Your task to perform on an android device: Do I have any events tomorrow? Image 0: 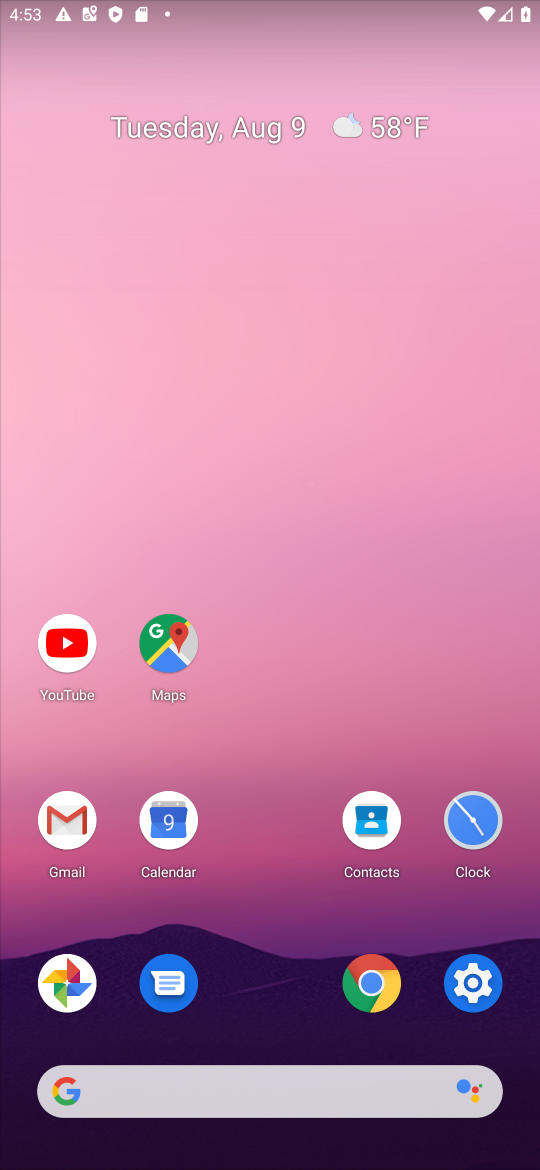
Step 0: click (170, 816)
Your task to perform on an android device: Do I have any events tomorrow? Image 1: 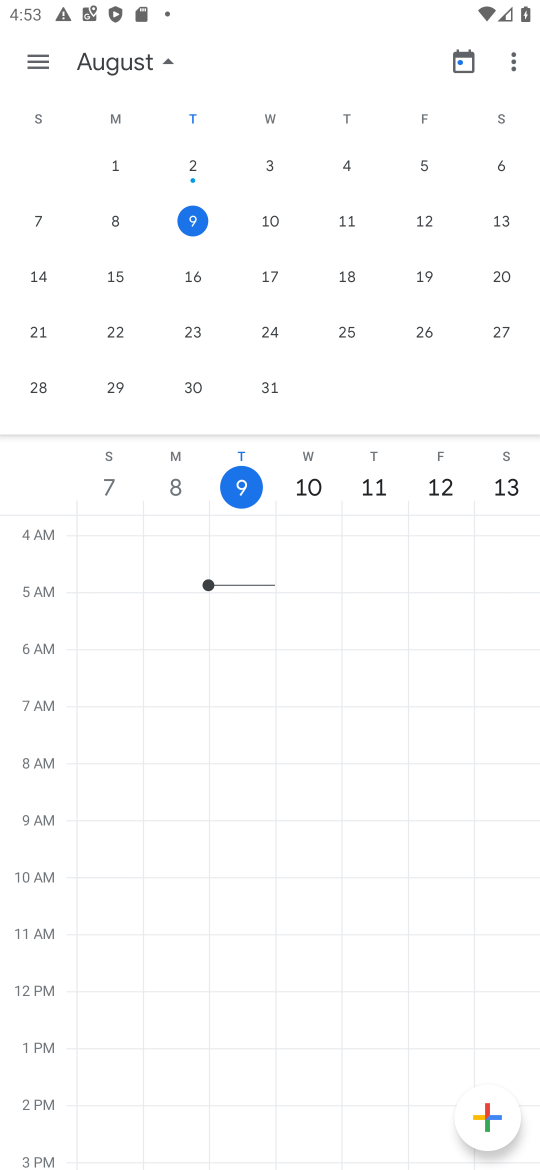
Step 1: click (268, 218)
Your task to perform on an android device: Do I have any events tomorrow? Image 2: 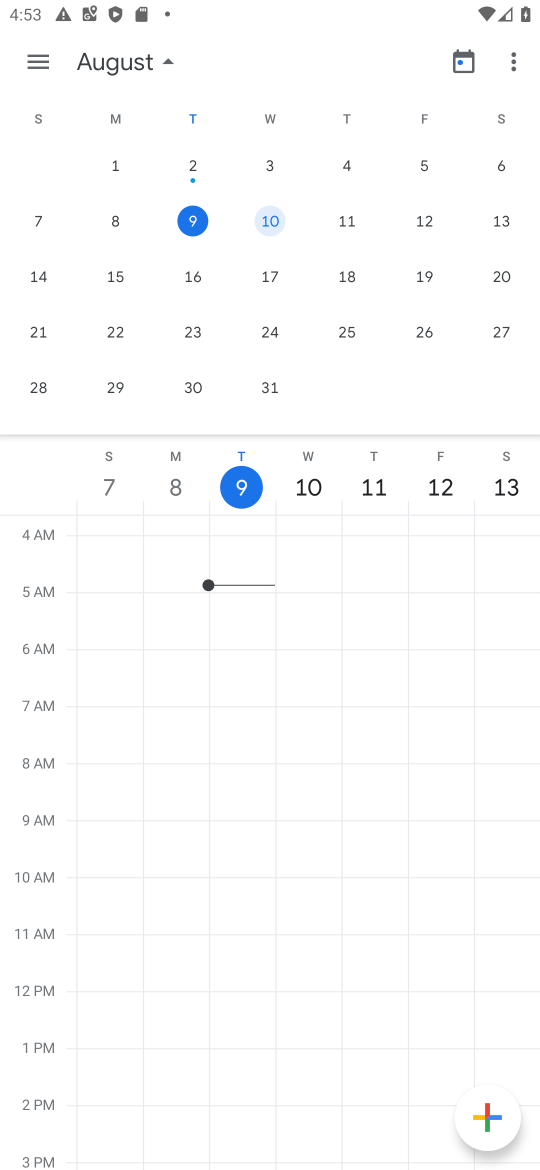
Step 2: click (268, 218)
Your task to perform on an android device: Do I have any events tomorrow? Image 3: 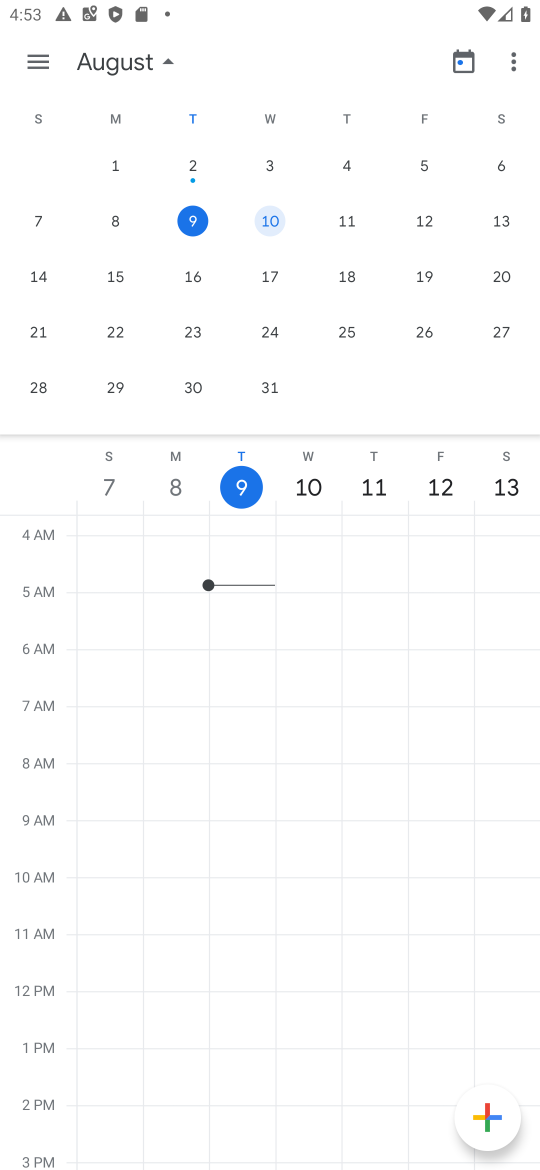
Step 3: click (316, 479)
Your task to perform on an android device: Do I have any events tomorrow? Image 4: 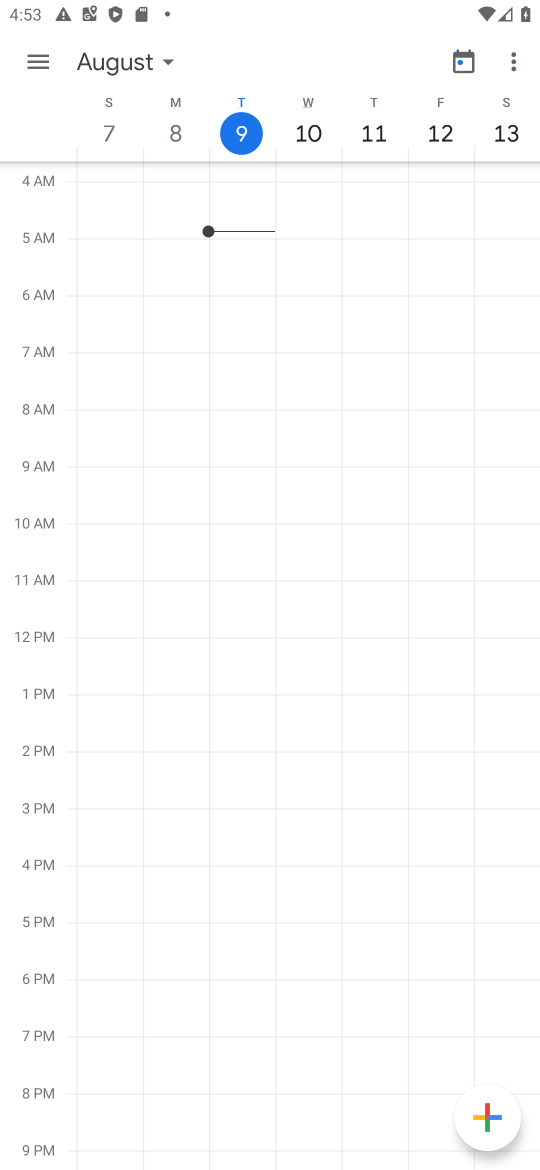
Step 4: click (314, 130)
Your task to perform on an android device: Do I have any events tomorrow? Image 5: 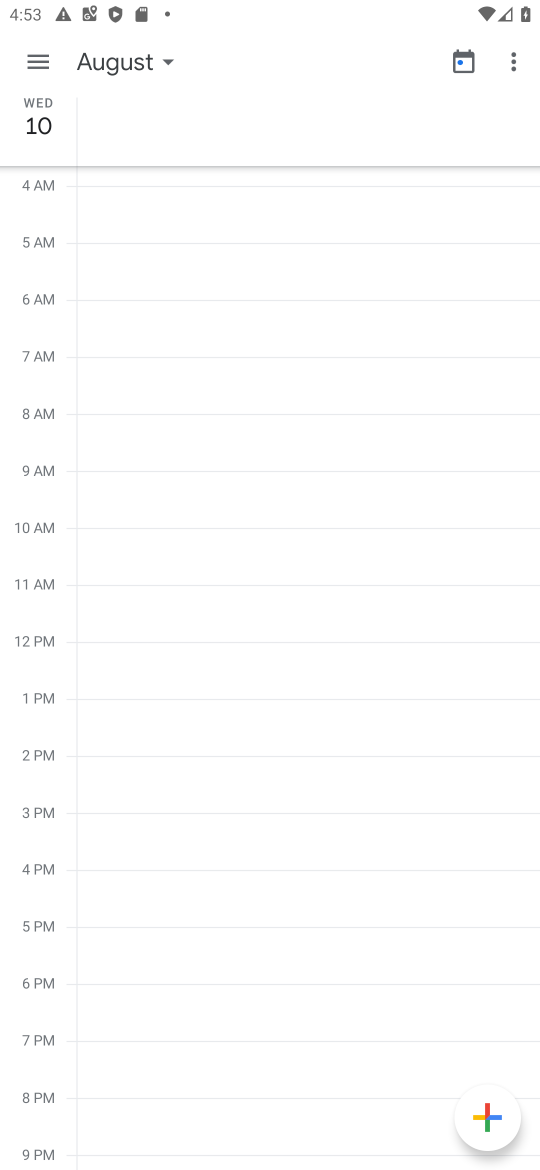
Step 5: task complete